Your task to perform on an android device: What's the weather? Image 0: 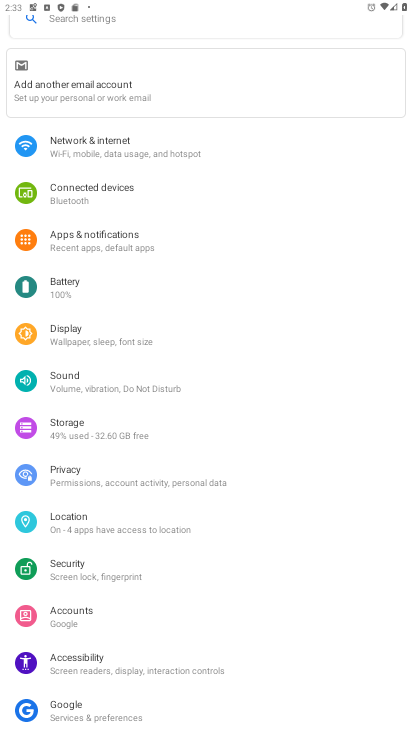
Step 0: press home button
Your task to perform on an android device: What's the weather? Image 1: 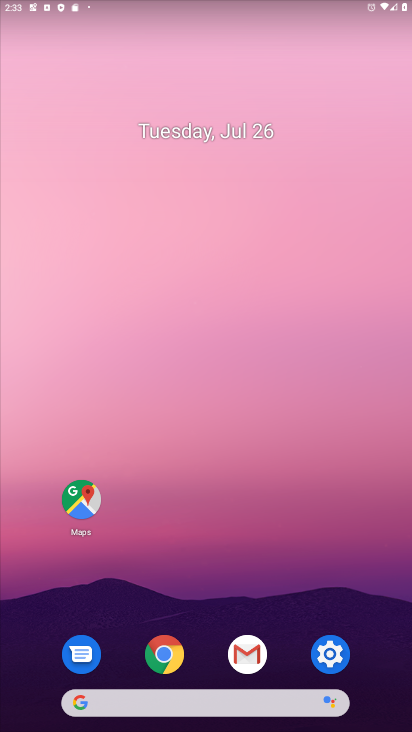
Step 1: click (180, 715)
Your task to perform on an android device: What's the weather? Image 2: 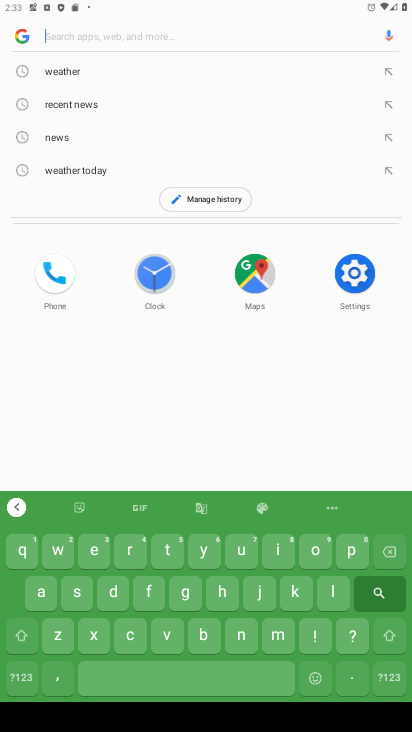
Step 2: click (109, 78)
Your task to perform on an android device: What's the weather? Image 3: 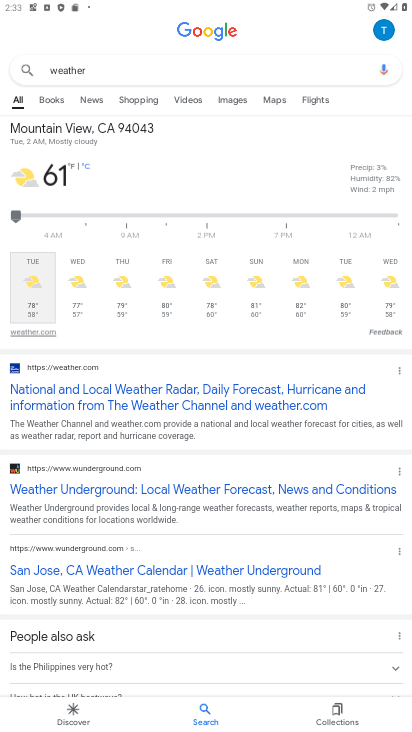
Step 3: task complete